Your task to perform on an android device: What's the US dollar exchange rate against the Euro? Image 0: 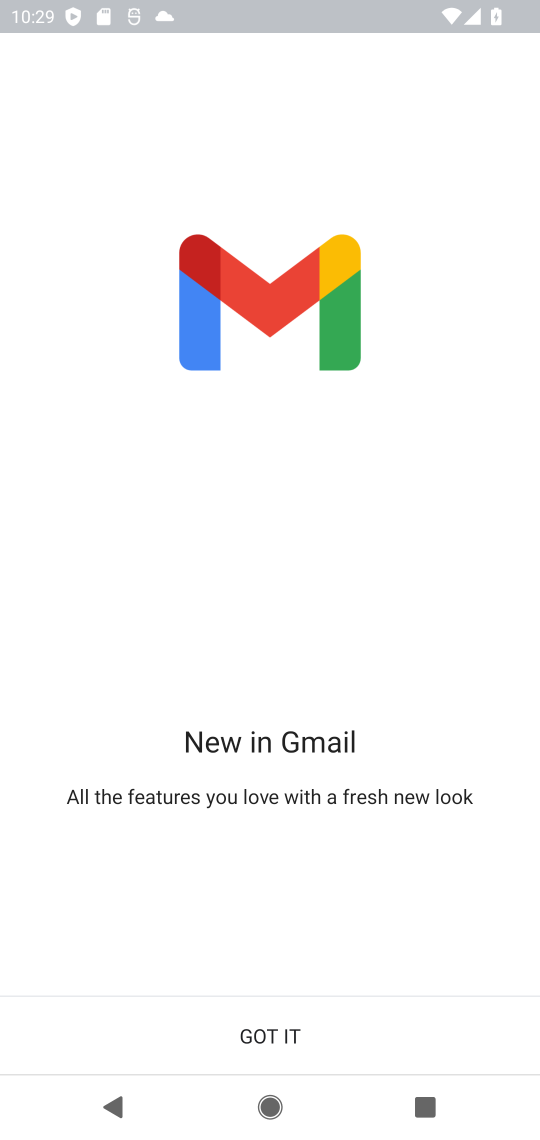
Step 0: press home button
Your task to perform on an android device: What's the US dollar exchange rate against the Euro? Image 1: 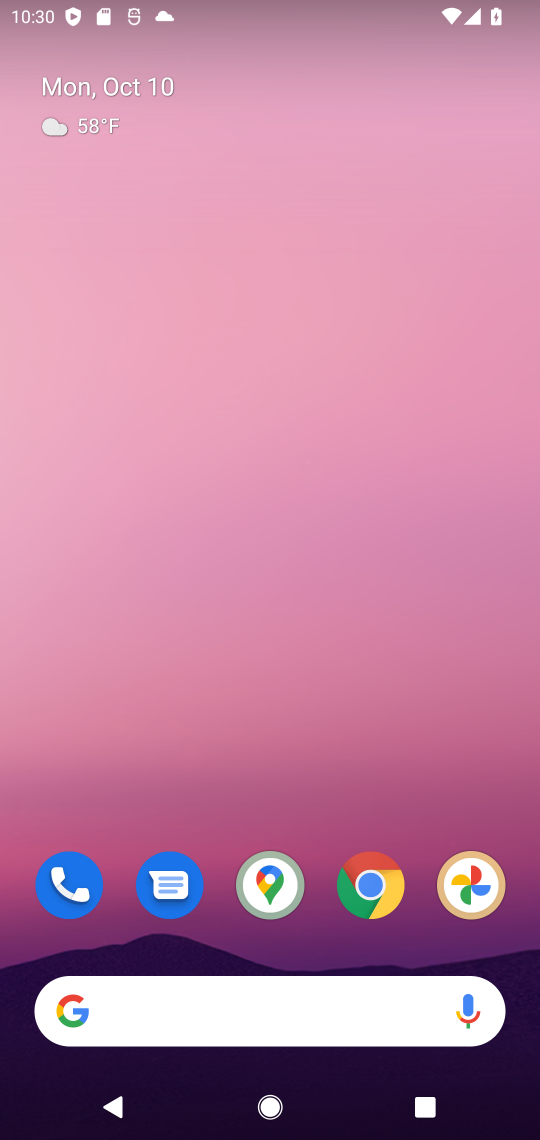
Step 1: click (348, 876)
Your task to perform on an android device: What's the US dollar exchange rate against the Euro? Image 2: 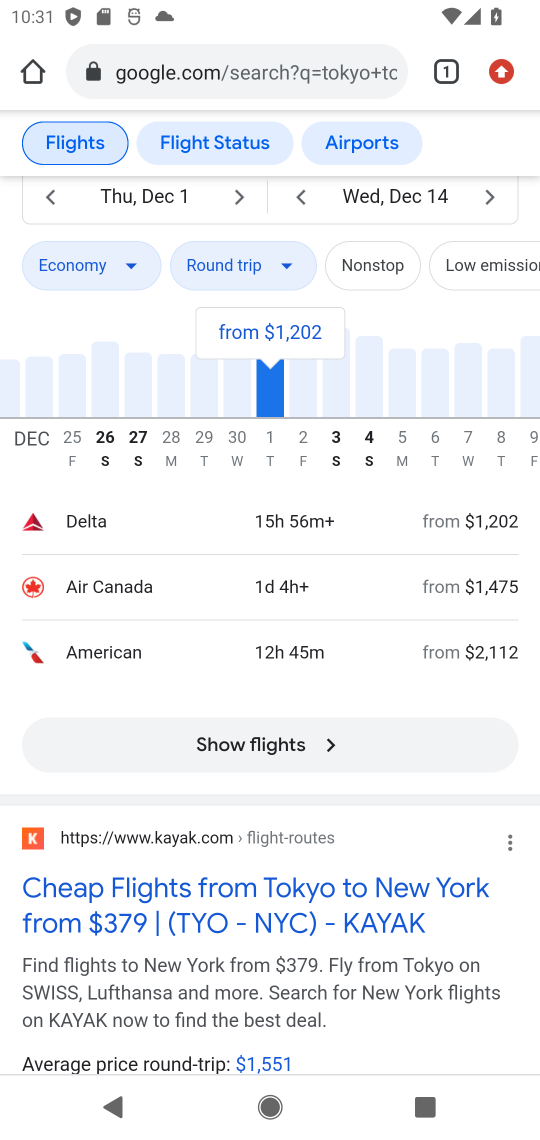
Step 2: click (386, 91)
Your task to perform on an android device: What's the US dollar exchange rate against the Euro? Image 3: 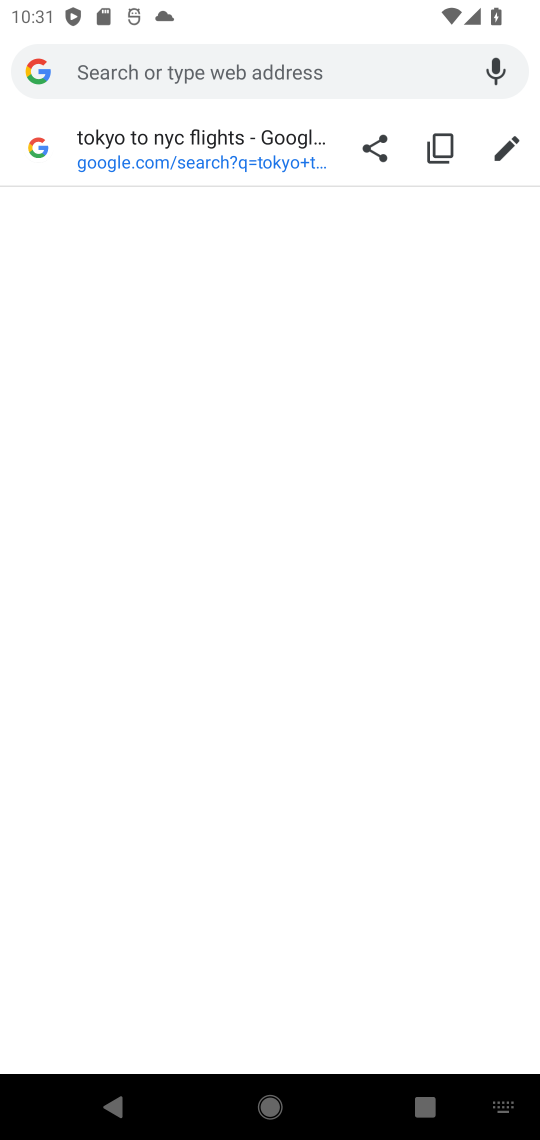
Step 3: type "US dollar exchange rate against the Euro?"
Your task to perform on an android device: What's the US dollar exchange rate against the Euro? Image 4: 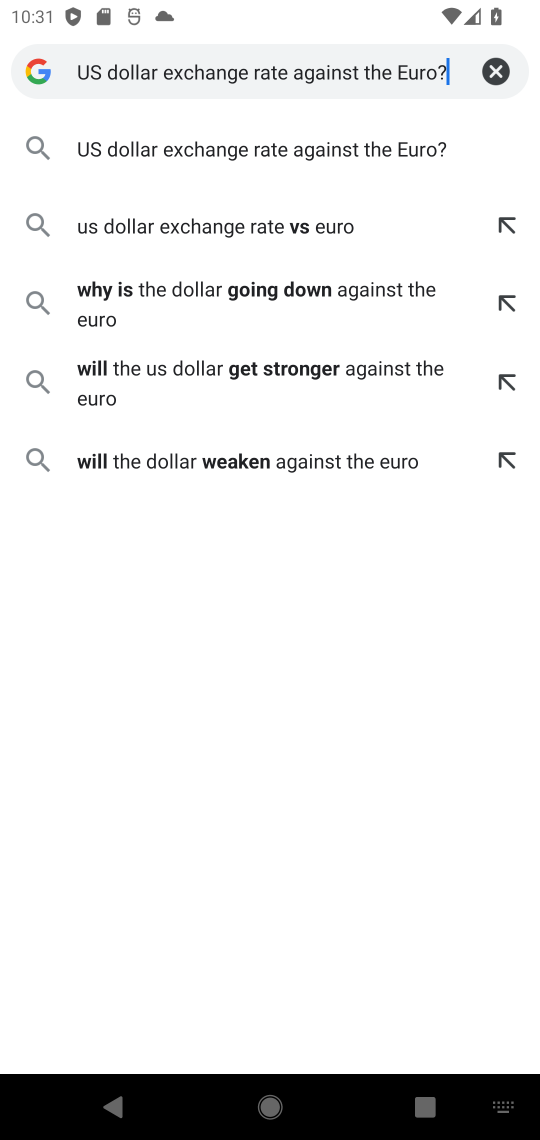
Step 4: click (354, 137)
Your task to perform on an android device: What's the US dollar exchange rate against the Euro? Image 5: 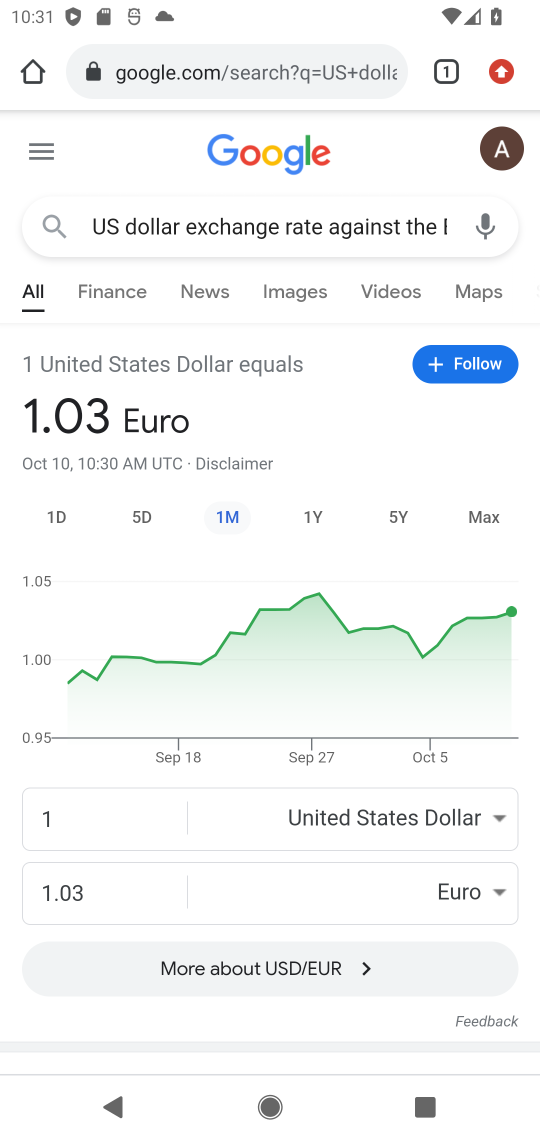
Step 5: task complete